Your task to perform on an android device: toggle priority inbox in the gmail app Image 0: 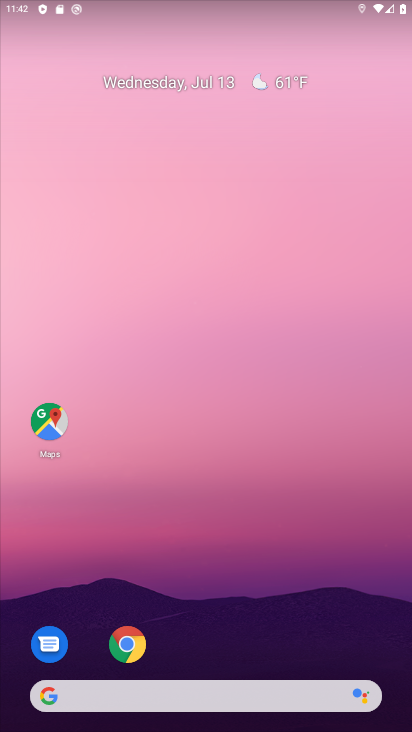
Step 0: drag from (212, 652) to (232, 205)
Your task to perform on an android device: toggle priority inbox in the gmail app Image 1: 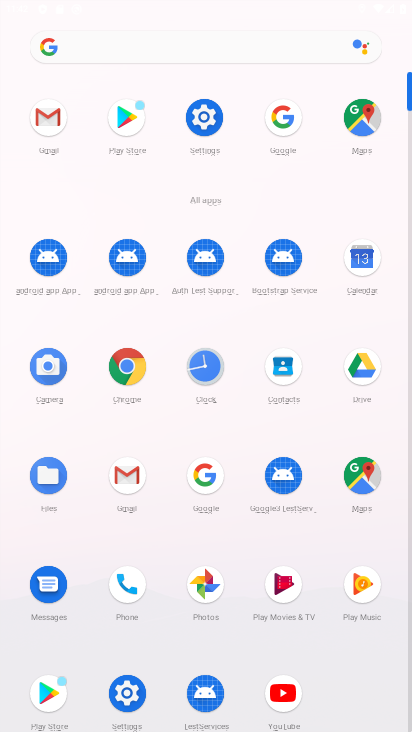
Step 1: click (46, 118)
Your task to perform on an android device: toggle priority inbox in the gmail app Image 2: 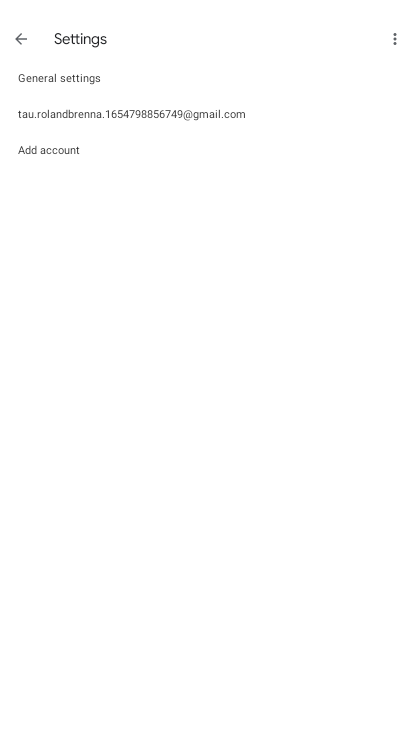
Step 2: click (103, 111)
Your task to perform on an android device: toggle priority inbox in the gmail app Image 3: 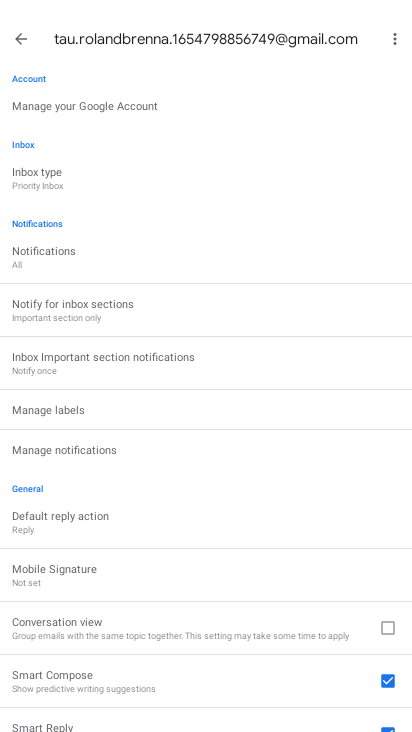
Step 3: click (46, 190)
Your task to perform on an android device: toggle priority inbox in the gmail app Image 4: 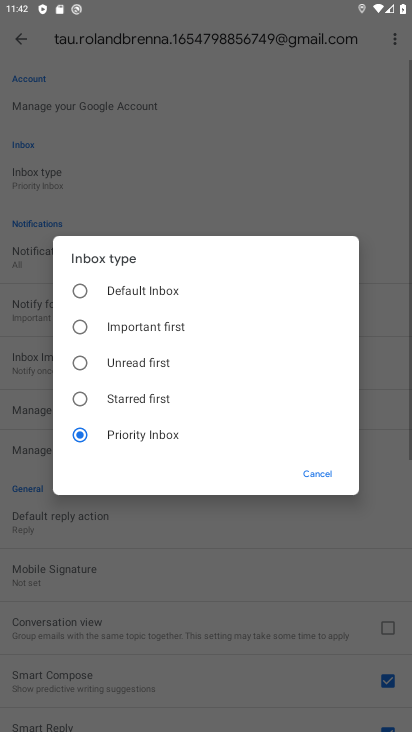
Step 4: click (82, 289)
Your task to perform on an android device: toggle priority inbox in the gmail app Image 5: 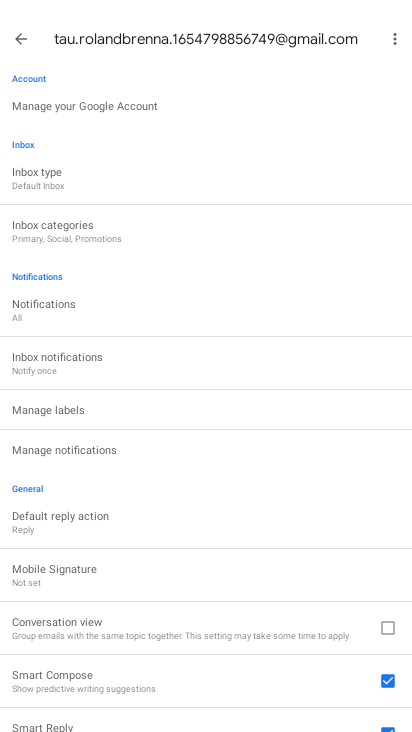
Step 5: task complete